Your task to perform on an android device: turn off sleep mode Image 0: 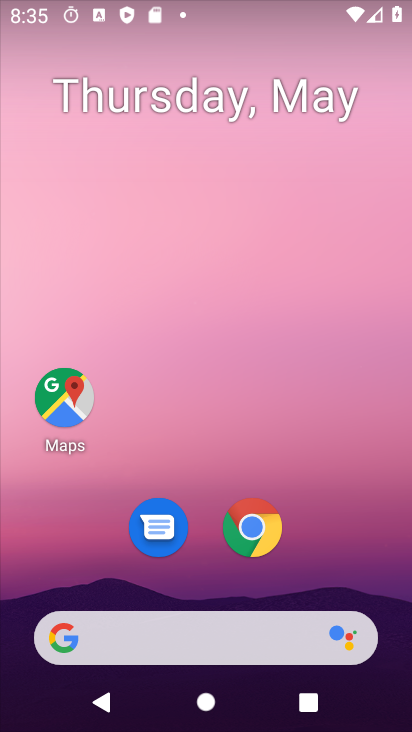
Step 0: drag from (0, 714) to (283, 222)
Your task to perform on an android device: turn off sleep mode Image 1: 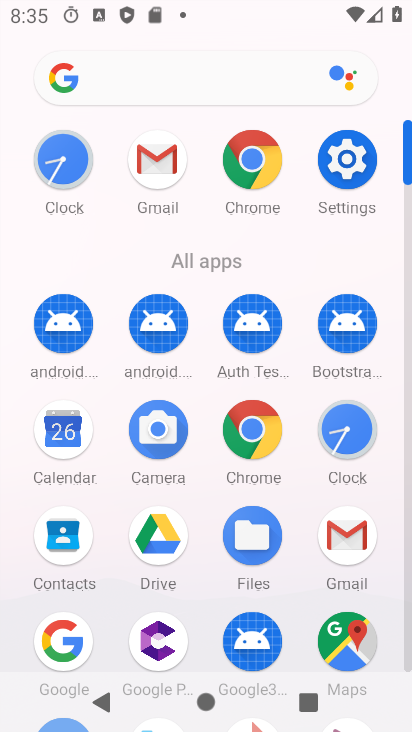
Step 1: click (347, 151)
Your task to perform on an android device: turn off sleep mode Image 2: 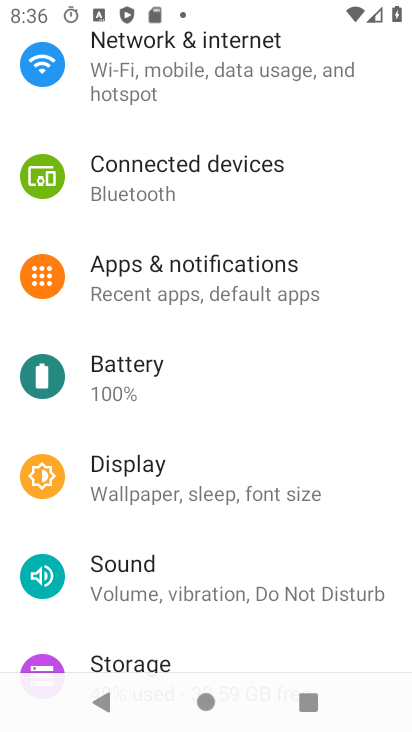
Step 2: click (189, 481)
Your task to perform on an android device: turn off sleep mode Image 3: 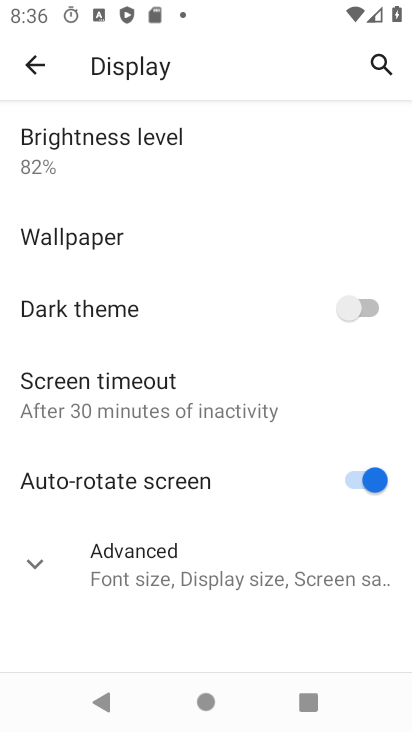
Step 3: task complete